Your task to perform on an android device: Open Google Maps and go to "Timeline" Image 0: 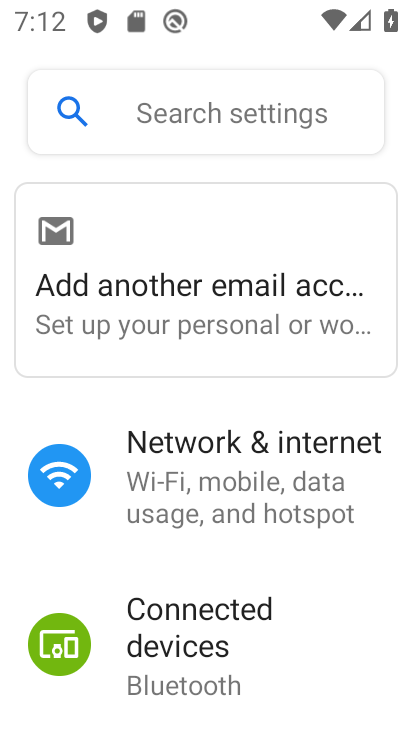
Step 0: press home button
Your task to perform on an android device: Open Google Maps and go to "Timeline" Image 1: 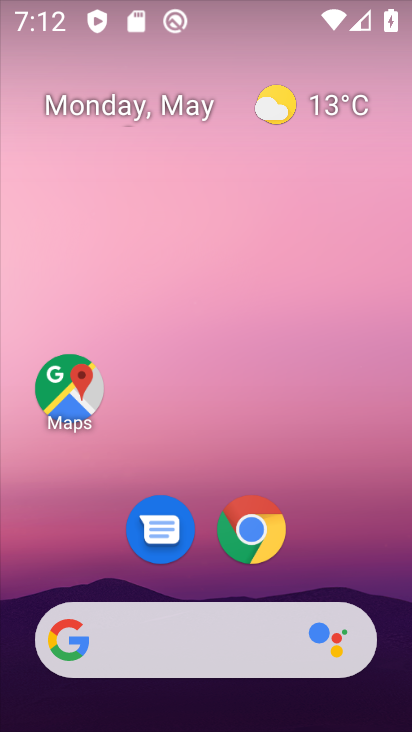
Step 1: drag from (253, 703) to (392, 198)
Your task to perform on an android device: Open Google Maps and go to "Timeline" Image 2: 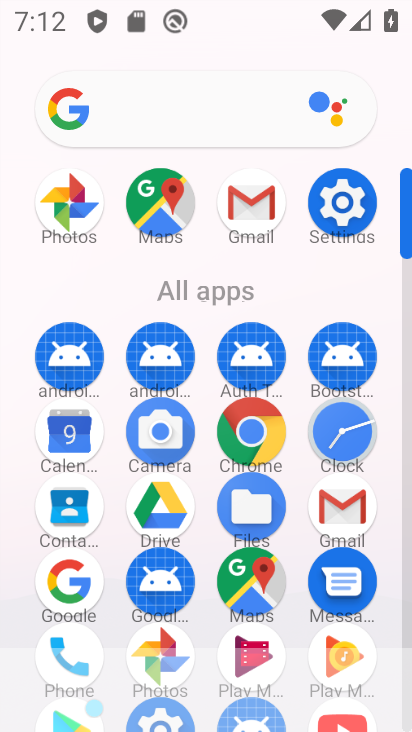
Step 2: click (153, 214)
Your task to perform on an android device: Open Google Maps and go to "Timeline" Image 3: 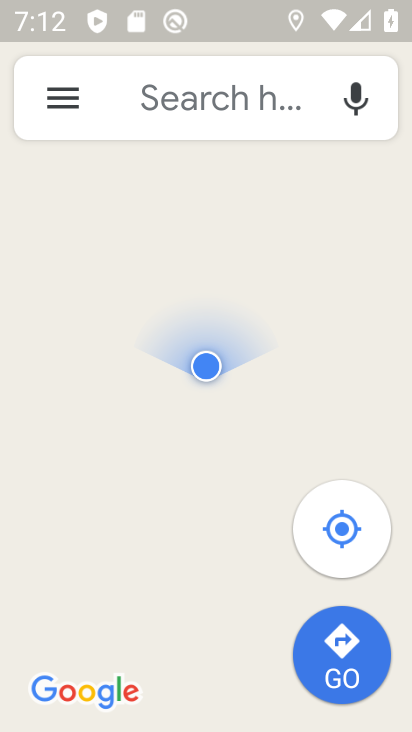
Step 3: click (78, 85)
Your task to perform on an android device: Open Google Maps and go to "Timeline" Image 4: 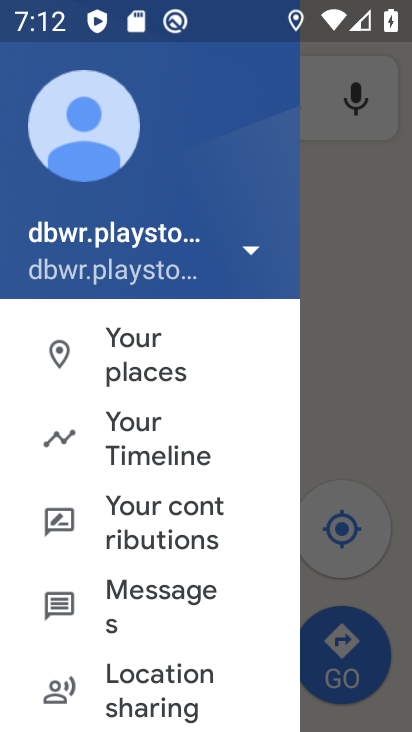
Step 4: click (140, 466)
Your task to perform on an android device: Open Google Maps and go to "Timeline" Image 5: 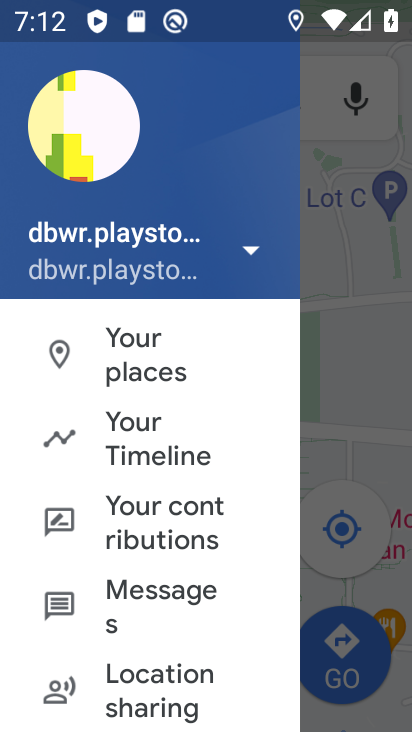
Step 5: click (148, 449)
Your task to perform on an android device: Open Google Maps and go to "Timeline" Image 6: 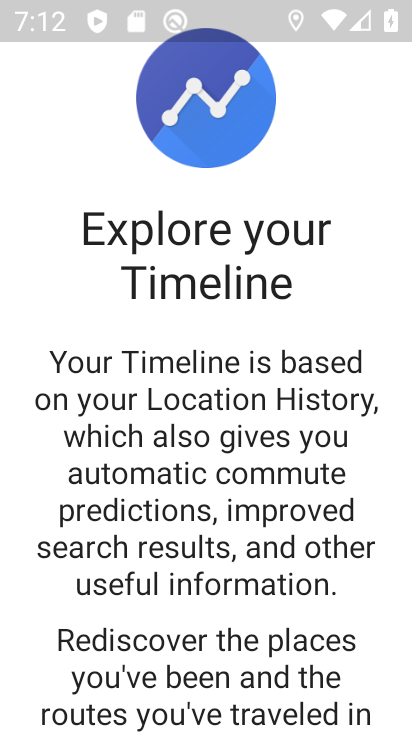
Step 6: drag from (206, 601) to (259, 244)
Your task to perform on an android device: Open Google Maps and go to "Timeline" Image 7: 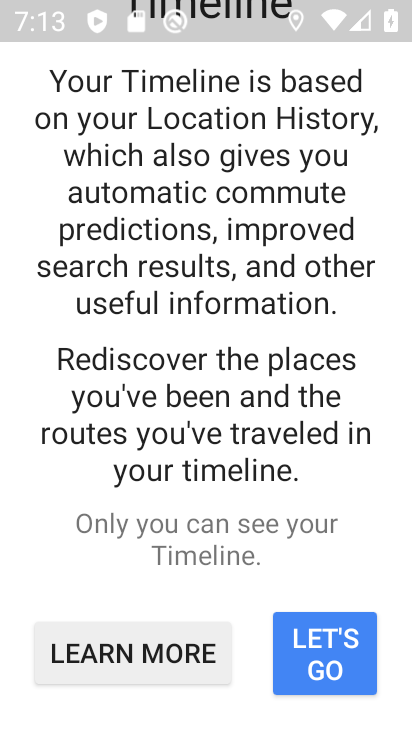
Step 7: click (317, 653)
Your task to perform on an android device: Open Google Maps and go to "Timeline" Image 8: 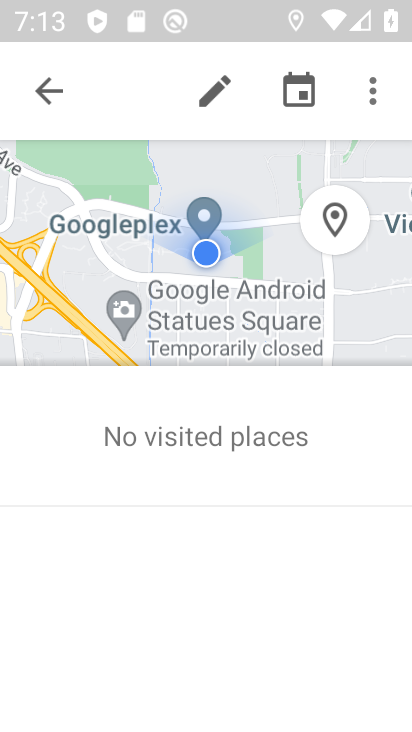
Step 8: task complete